Your task to perform on an android device: Go to network settings Image 0: 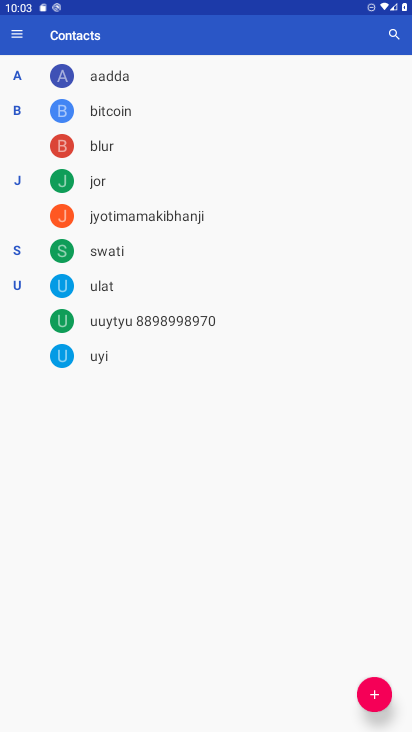
Step 0: drag from (188, 709) to (174, 188)
Your task to perform on an android device: Go to network settings Image 1: 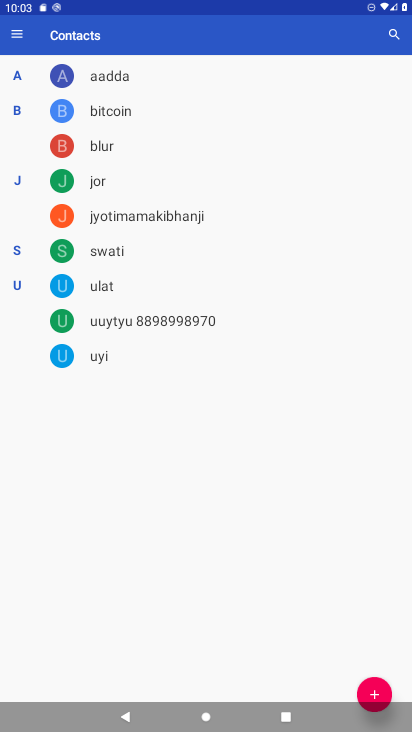
Step 1: press home button
Your task to perform on an android device: Go to network settings Image 2: 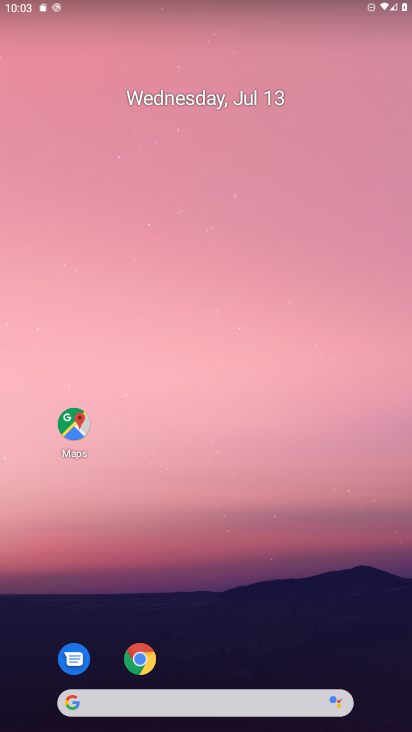
Step 2: drag from (178, 708) to (83, 133)
Your task to perform on an android device: Go to network settings Image 3: 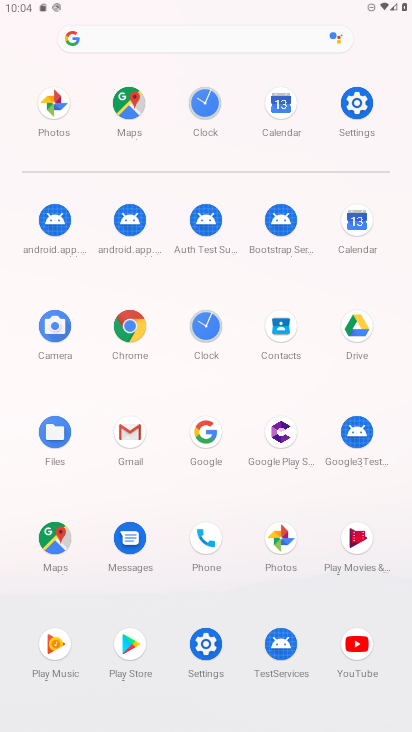
Step 3: click (200, 662)
Your task to perform on an android device: Go to network settings Image 4: 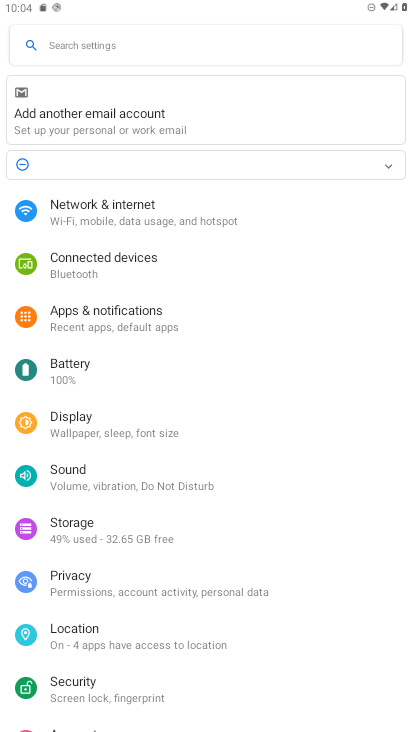
Step 4: click (124, 201)
Your task to perform on an android device: Go to network settings Image 5: 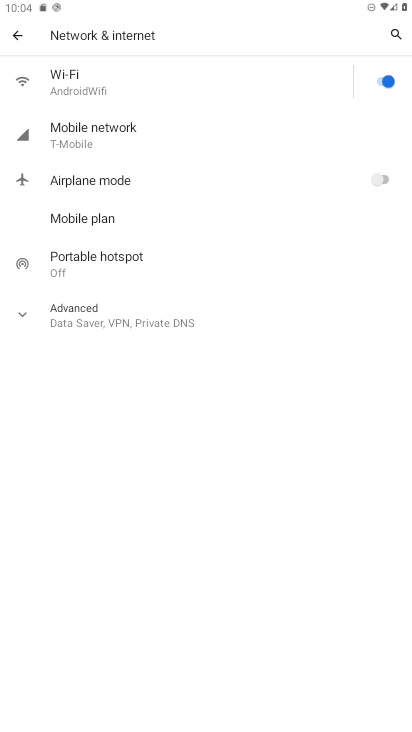
Step 5: task complete